Your task to perform on an android device: Go to battery settings Image 0: 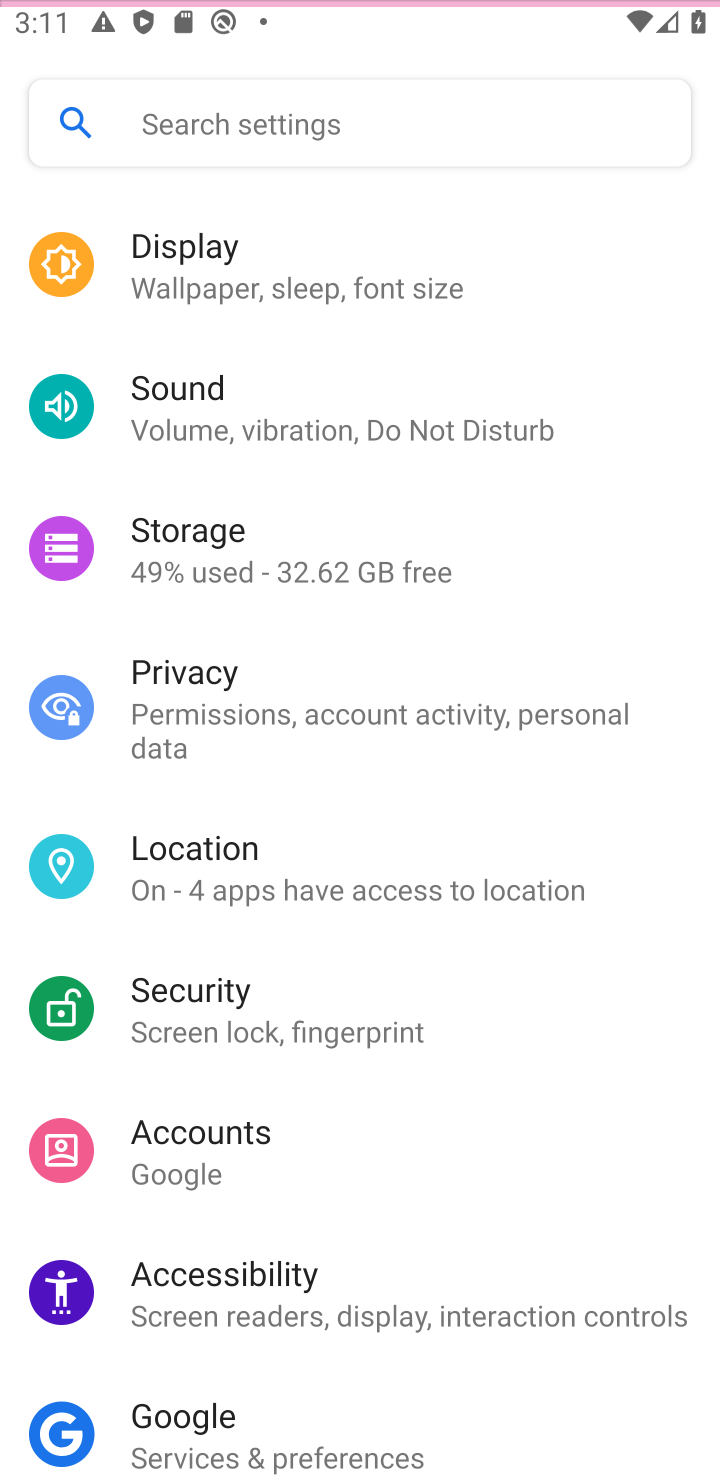
Step 0: click (251, 740)
Your task to perform on an android device: Go to battery settings Image 1: 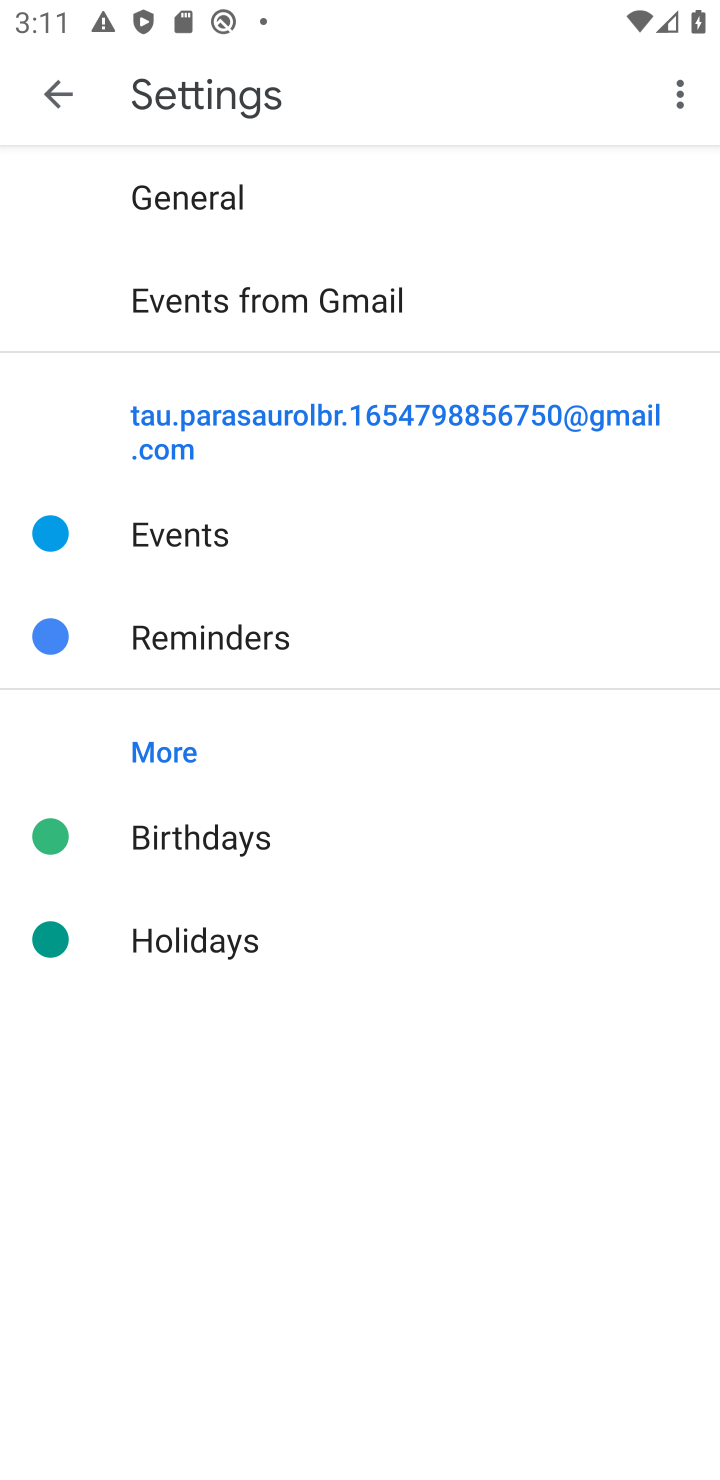
Step 1: click (41, 84)
Your task to perform on an android device: Go to battery settings Image 2: 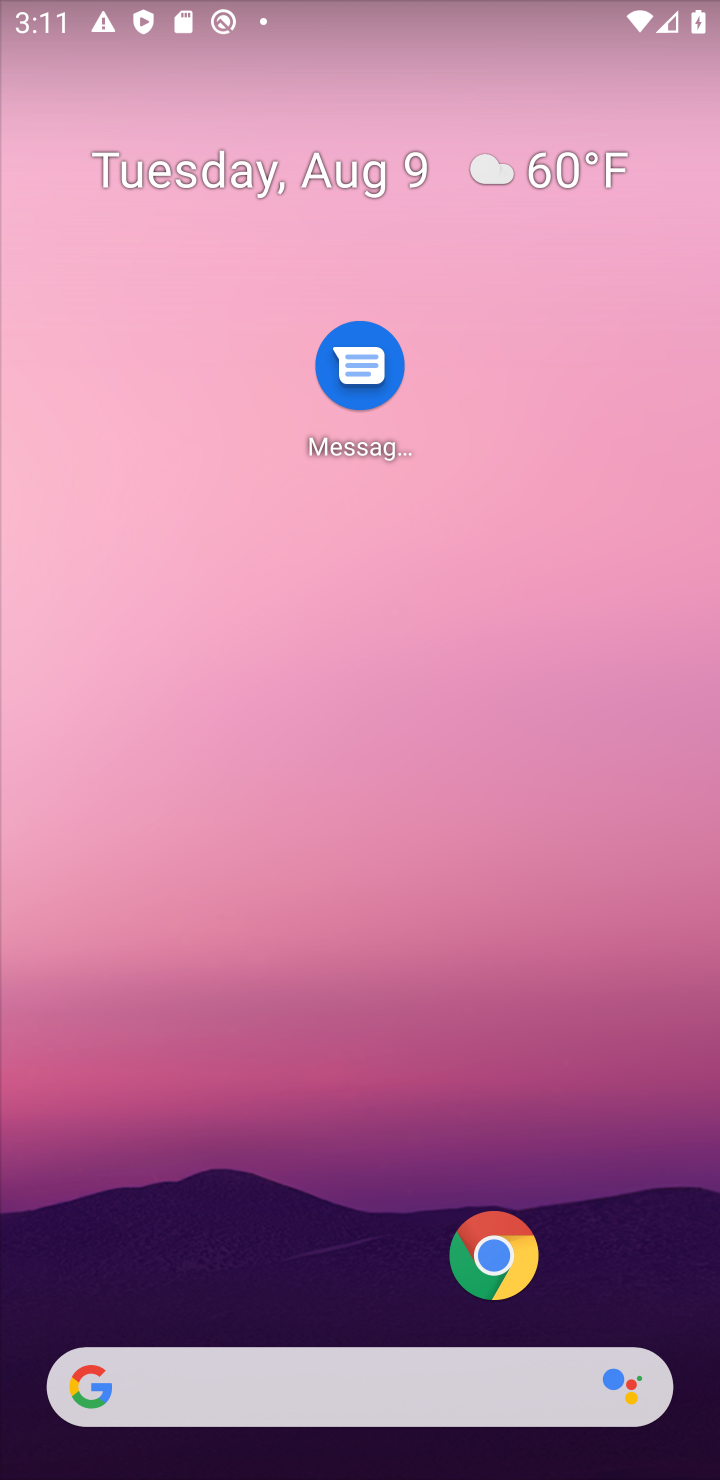
Step 2: drag from (355, 907) to (392, 346)
Your task to perform on an android device: Go to battery settings Image 3: 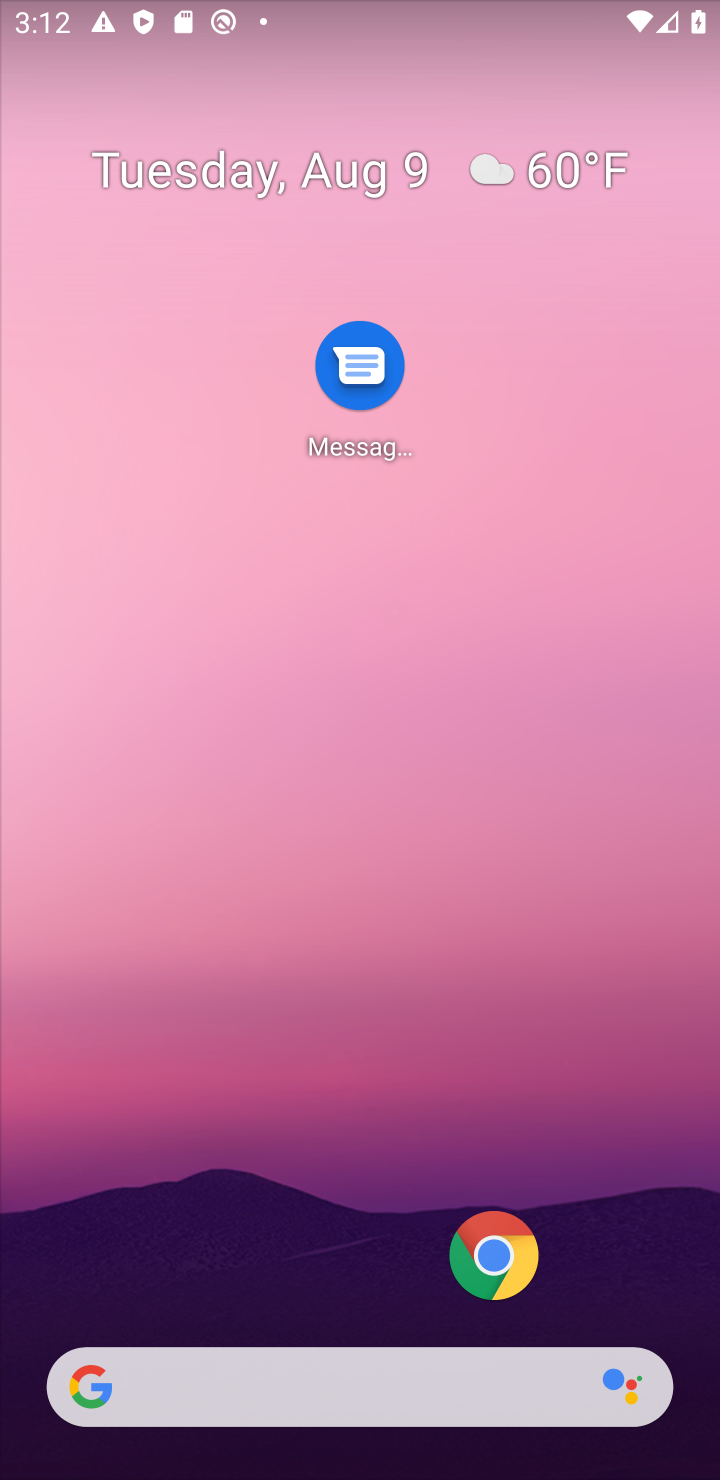
Step 3: drag from (334, 1163) to (401, 479)
Your task to perform on an android device: Go to battery settings Image 4: 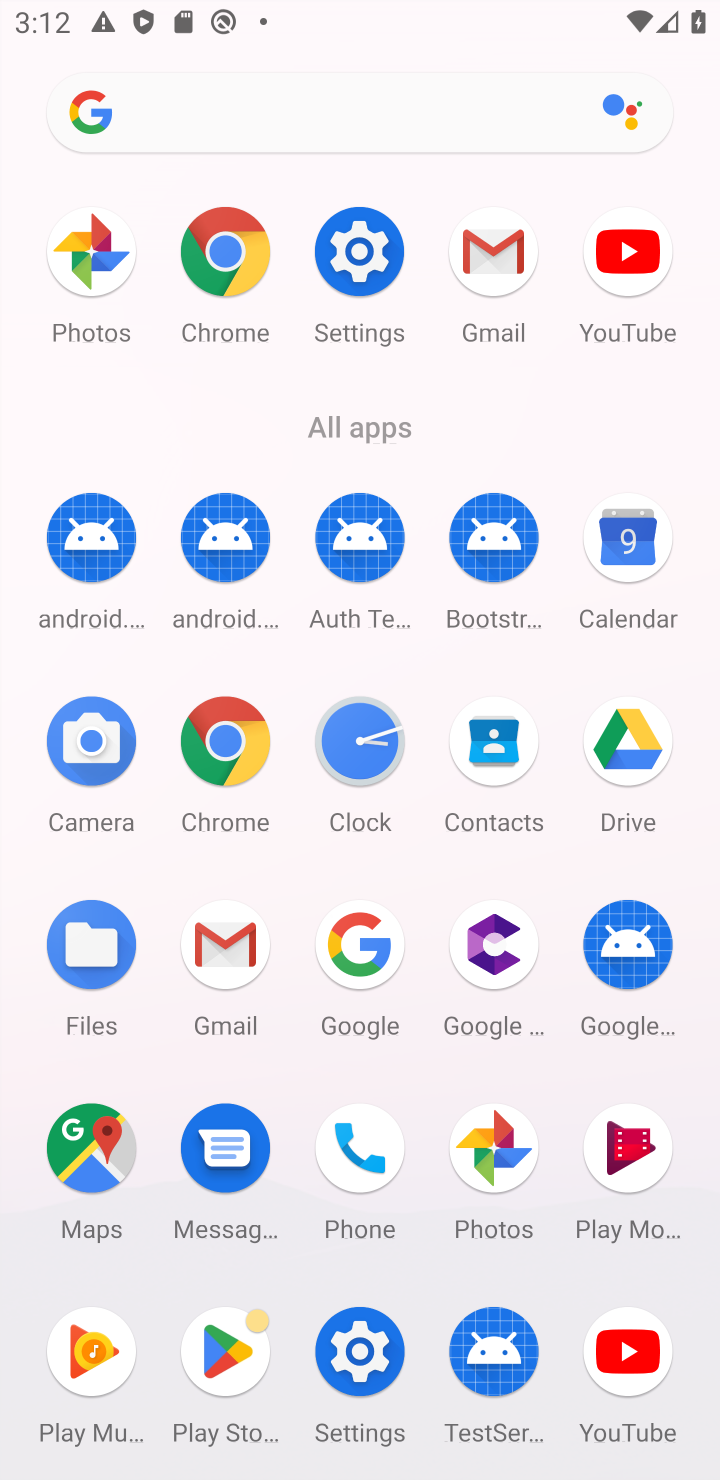
Step 4: click (339, 252)
Your task to perform on an android device: Go to battery settings Image 5: 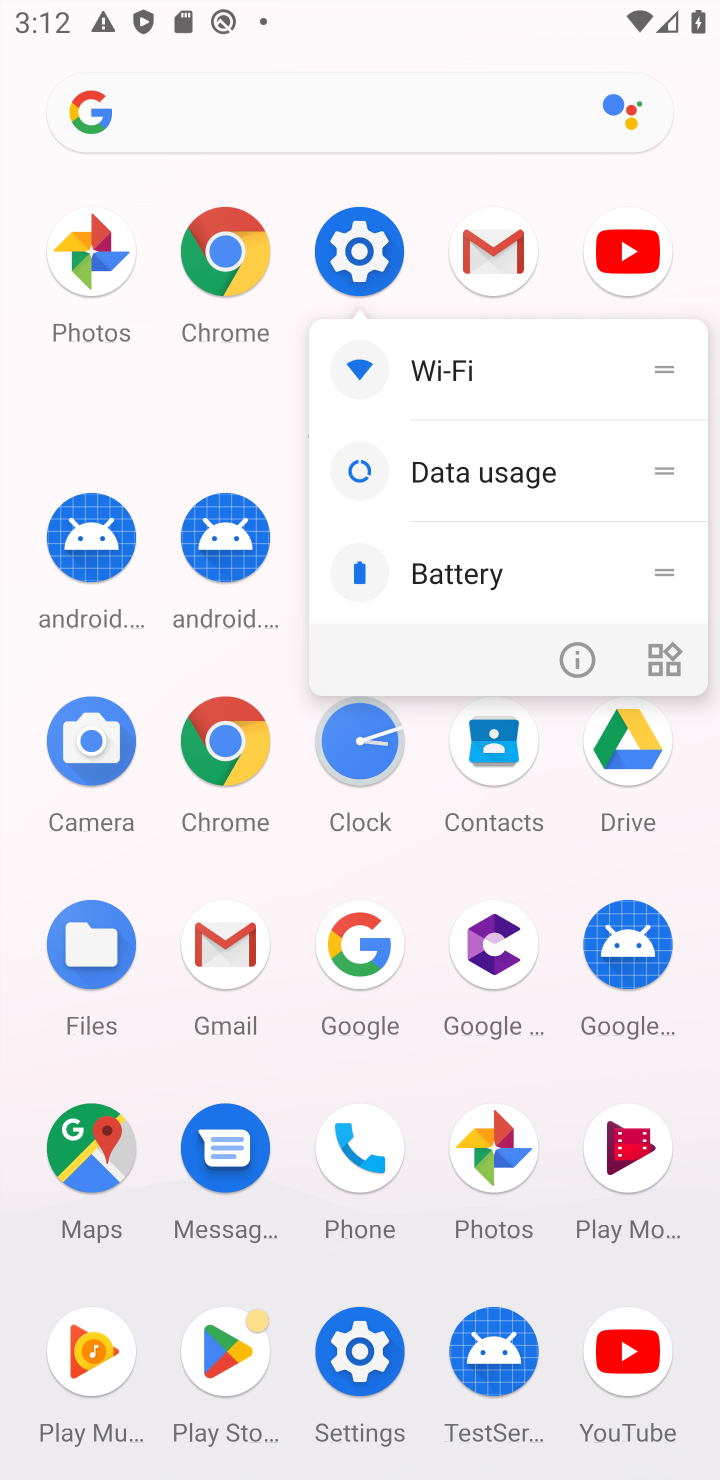
Step 5: click (339, 252)
Your task to perform on an android device: Go to battery settings Image 6: 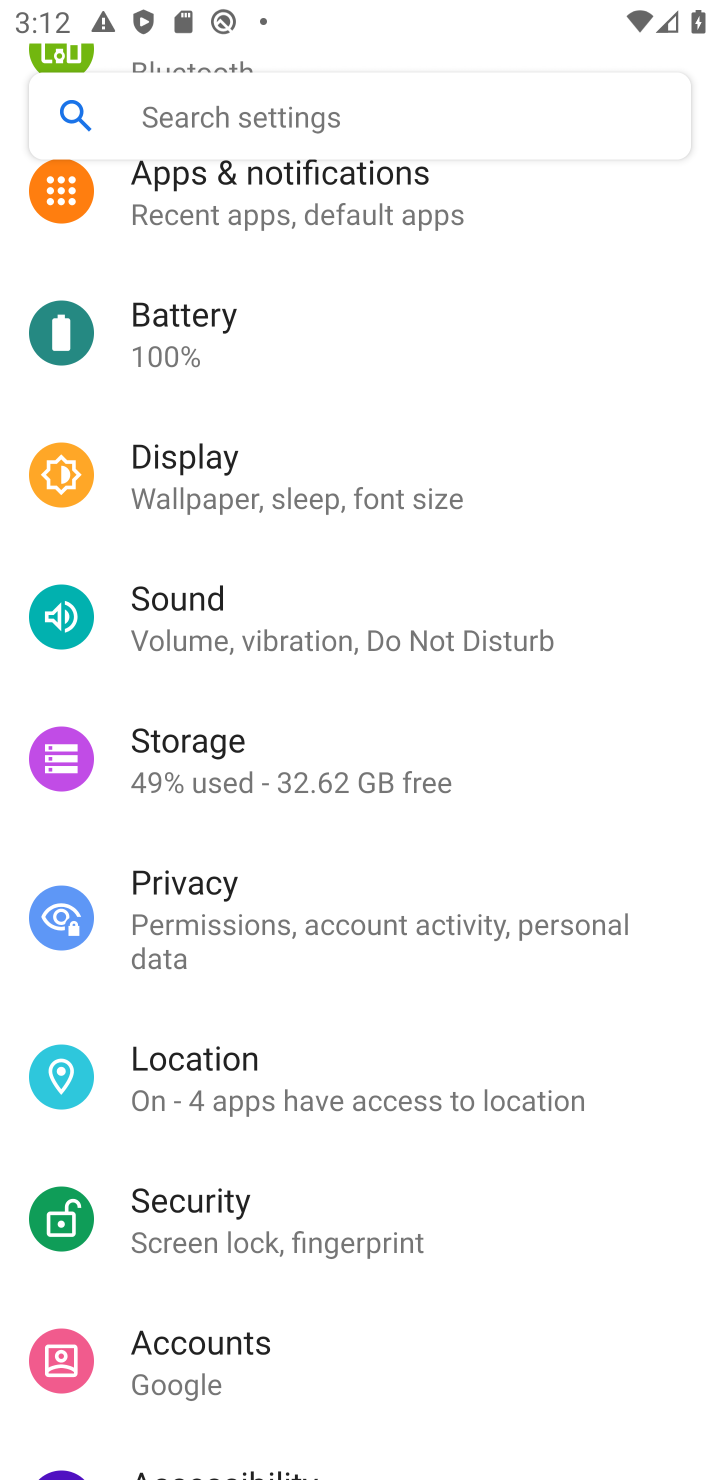
Step 6: click (232, 332)
Your task to perform on an android device: Go to battery settings Image 7: 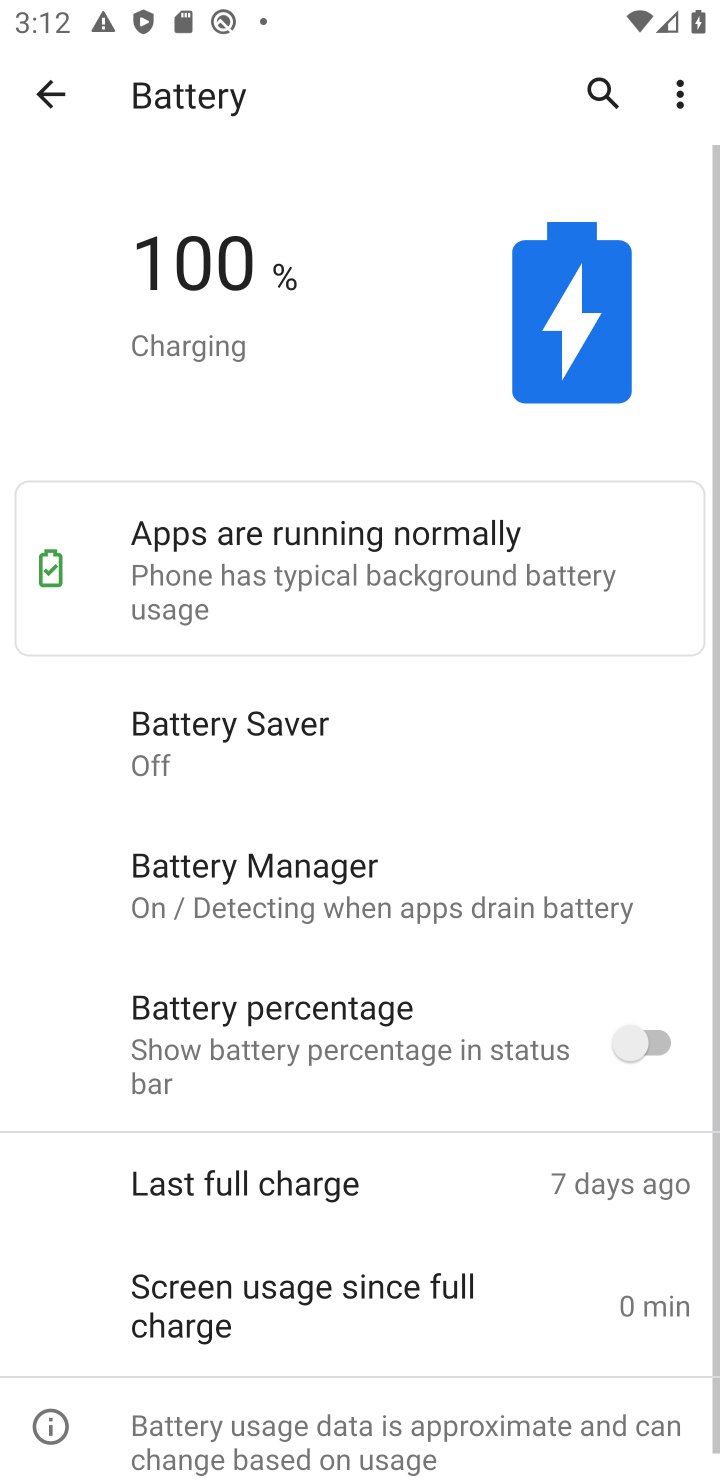
Step 7: task complete